Your task to perform on an android device: Is it going to rain today? Image 0: 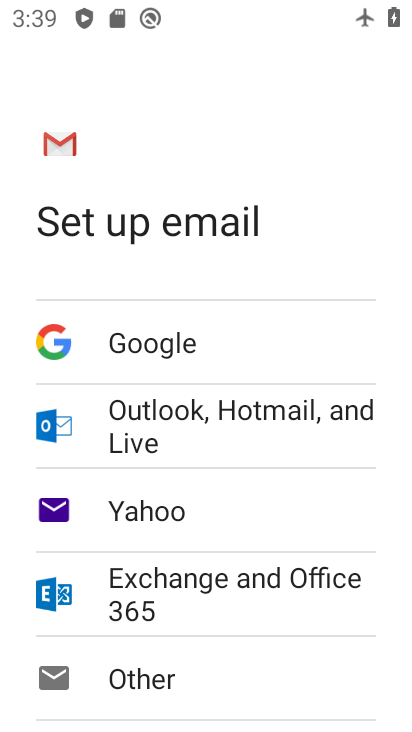
Step 0: press back button
Your task to perform on an android device: Is it going to rain today? Image 1: 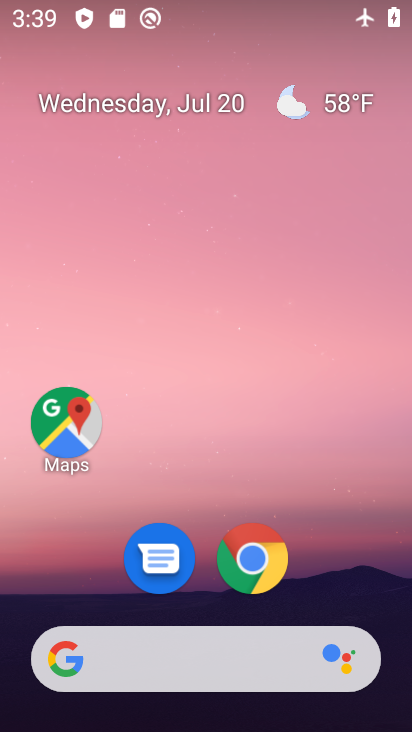
Step 1: drag from (83, 578) to (221, 73)
Your task to perform on an android device: Is it going to rain today? Image 2: 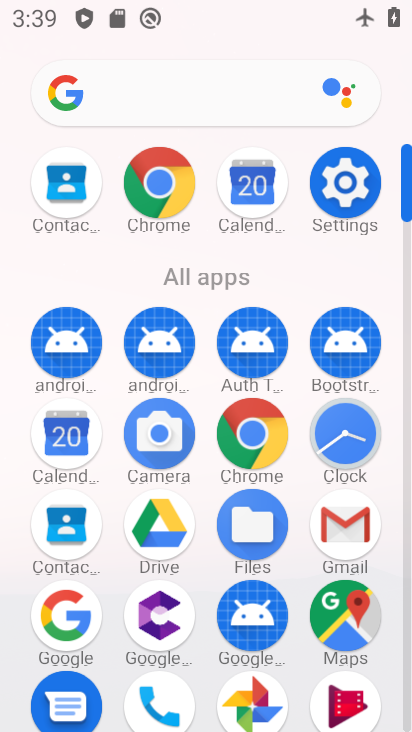
Step 2: click (153, 100)
Your task to perform on an android device: Is it going to rain today? Image 3: 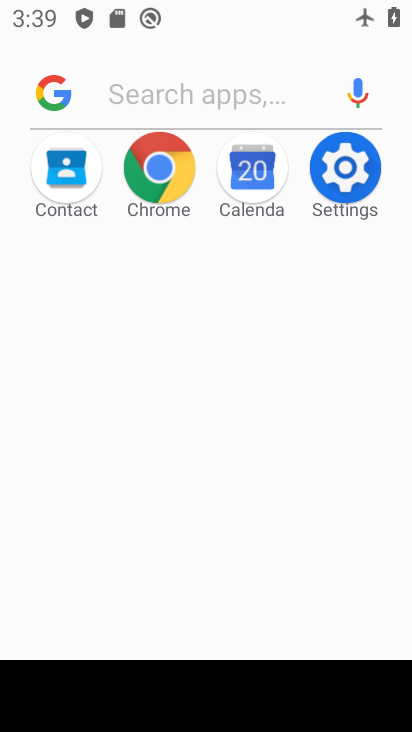
Step 3: type "weather"
Your task to perform on an android device: Is it going to rain today? Image 4: 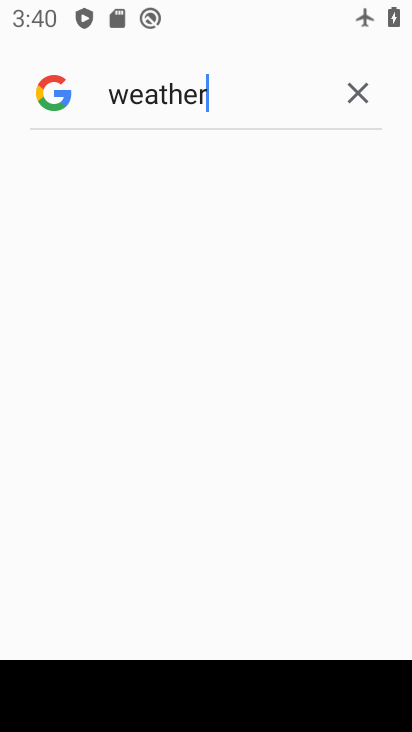
Step 4: drag from (351, 33) to (200, 536)
Your task to perform on an android device: Is it going to rain today? Image 5: 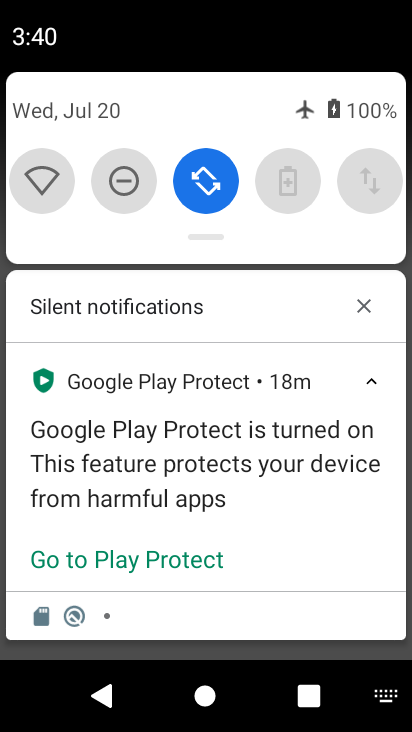
Step 5: drag from (248, 227) to (157, 615)
Your task to perform on an android device: Is it going to rain today? Image 6: 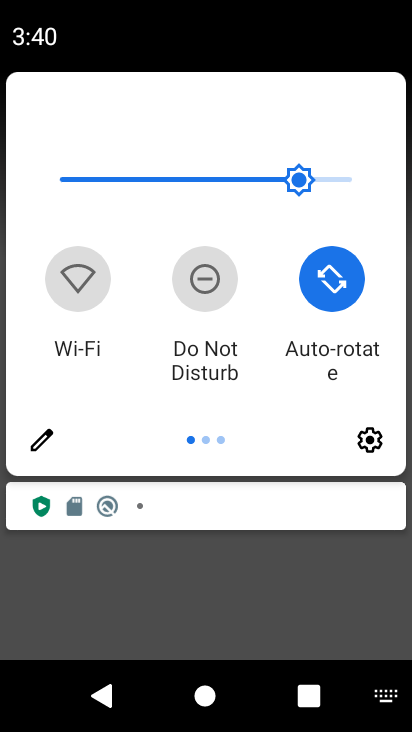
Step 6: drag from (380, 295) to (0, 255)
Your task to perform on an android device: Is it going to rain today? Image 7: 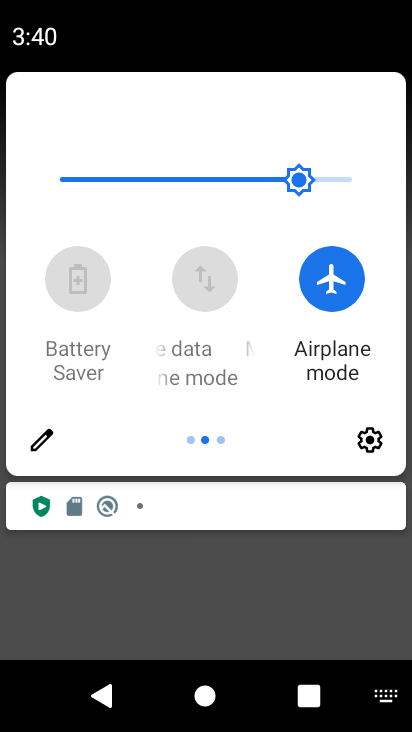
Step 7: click (341, 271)
Your task to perform on an android device: Is it going to rain today? Image 8: 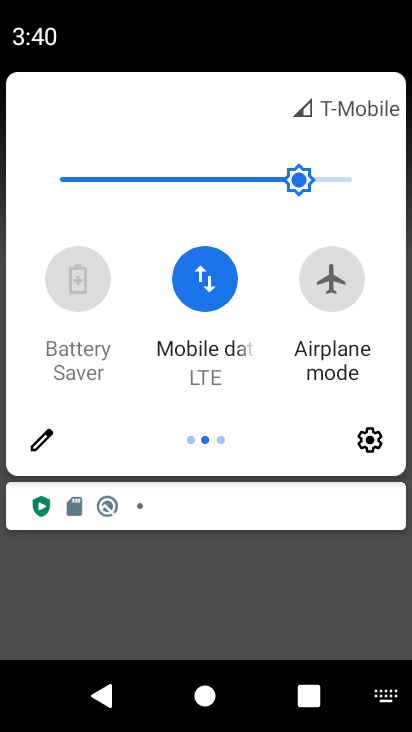
Step 8: click (149, 610)
Your task to perform on an android device: Is it going to rain today? Image 9: 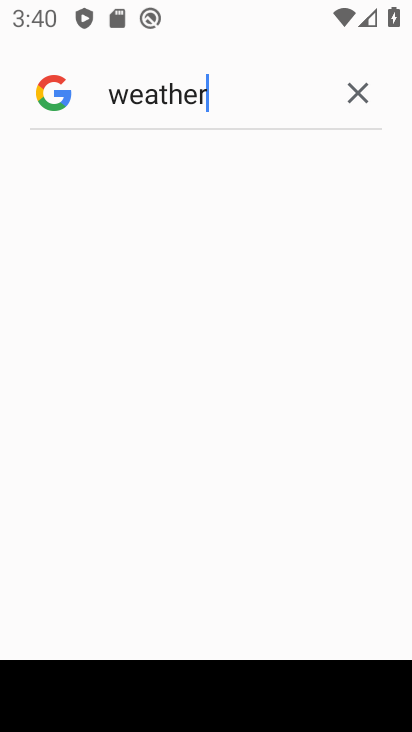
Step 9: click (364, 81)
Your task to perform on an android device: Is it going to rain today? Image 10: 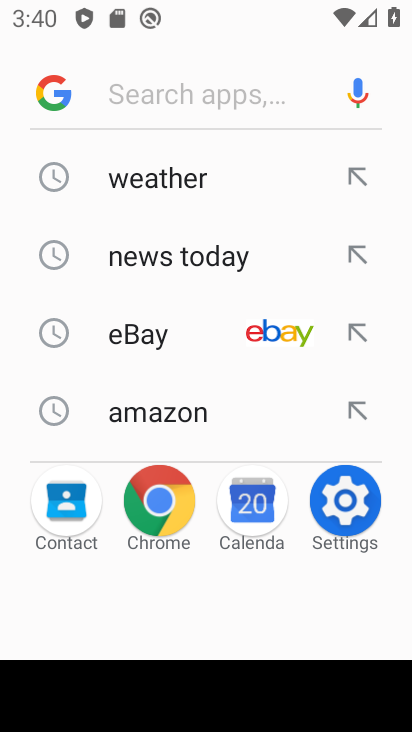
Step 10: click (134, 170)
Your task to perform on an android device: Is it going to rain today? Image 11: 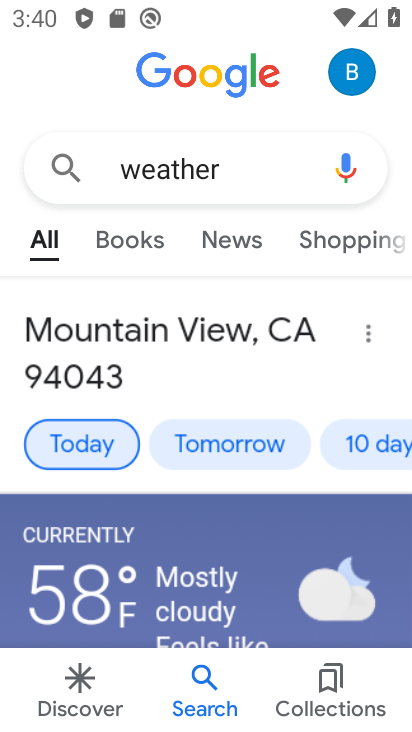
Step 11: task complete